Your task to perform on an android device: Clear the shopping cart on bestbuy.com. Image 0: 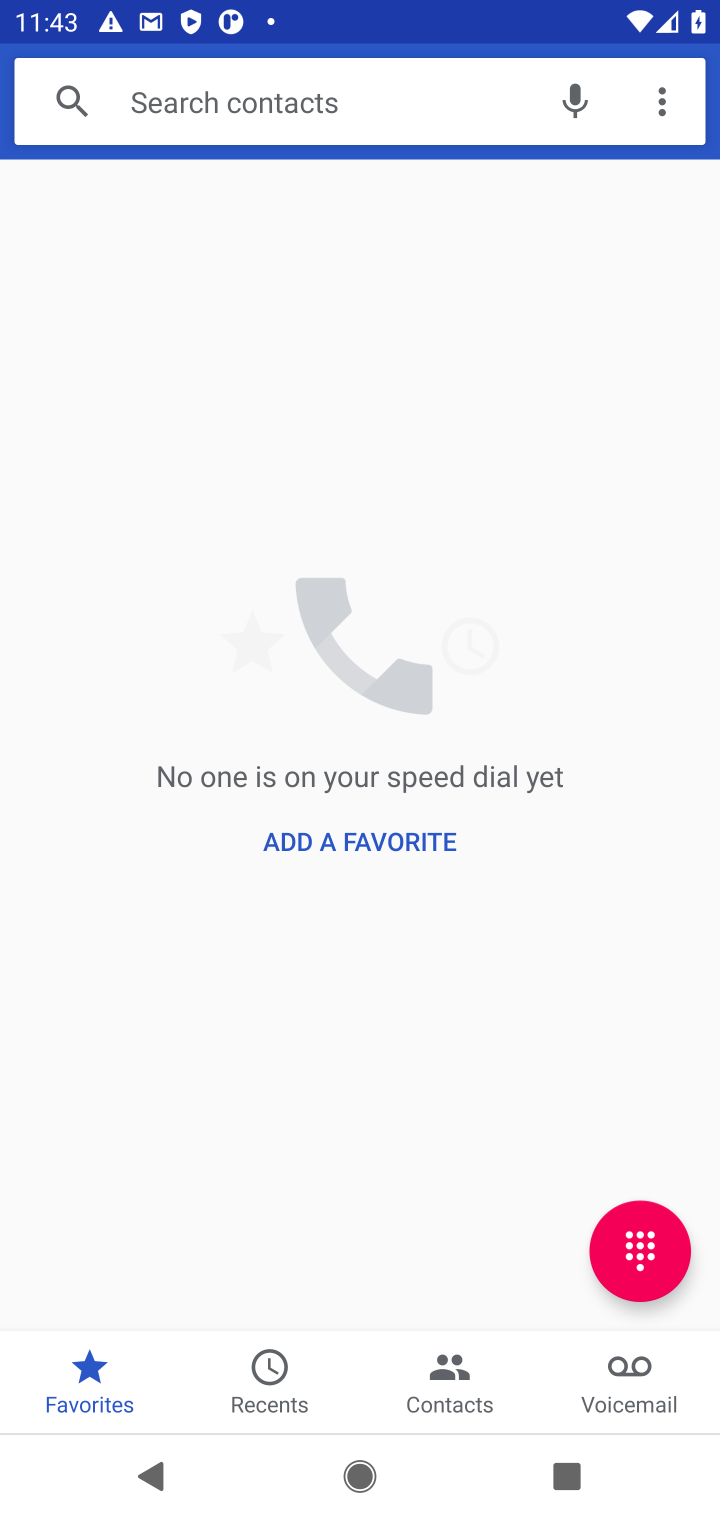
Step 0: press home button
Your task to perform on an android device: Clear the shopping cart on bestbuy.com. Image 1: 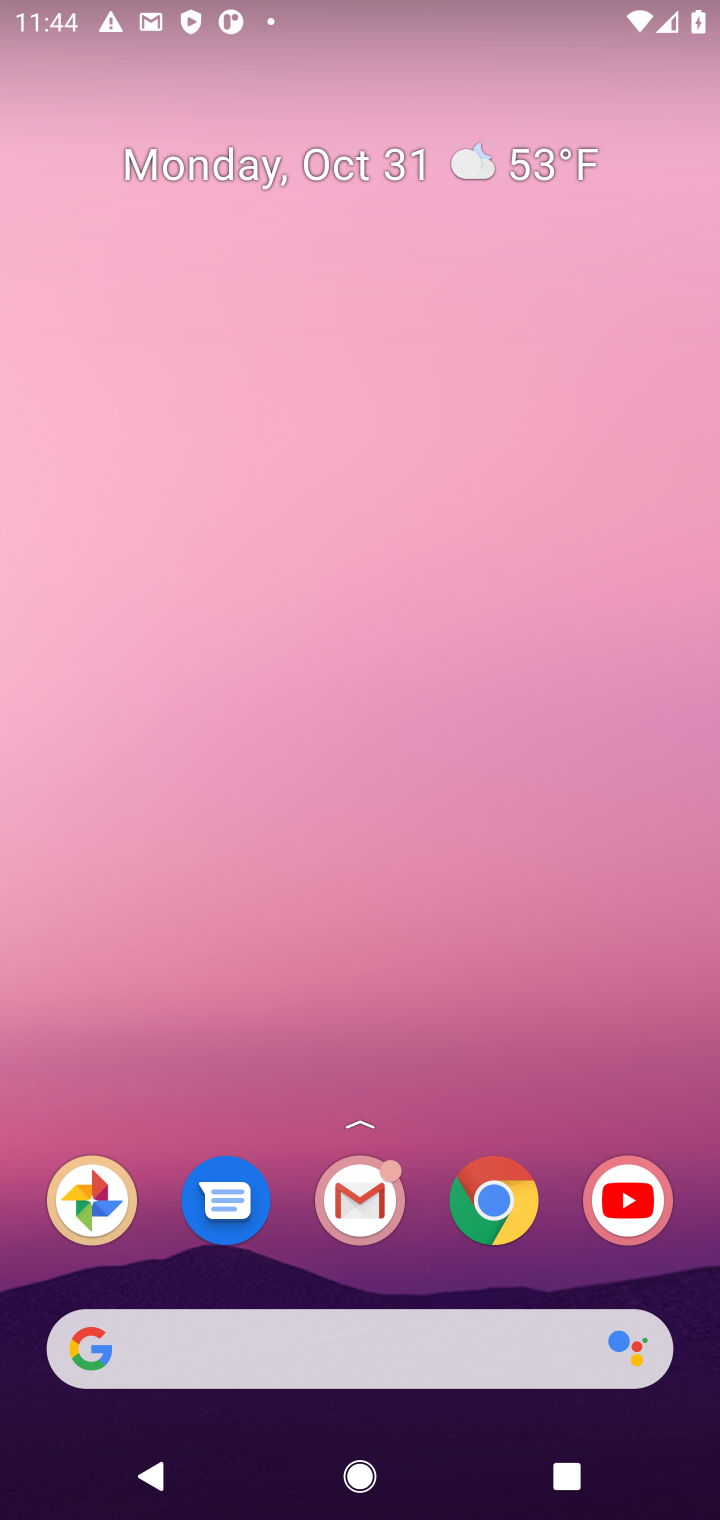
Step 1: press home button
Your task to perform on an android device: Clear the shopping cart on bestbuy.com. Image 2: 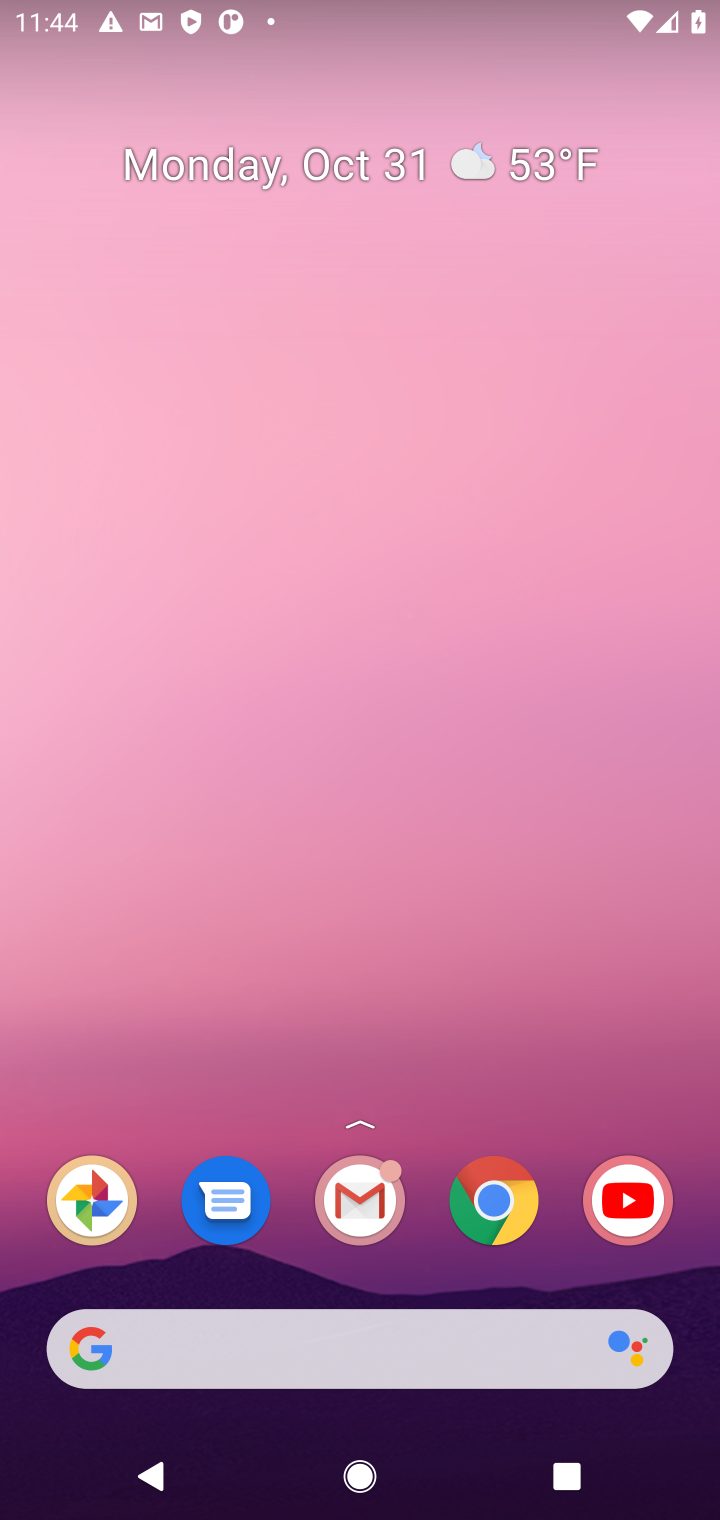
Step 2: click (475, 1225)
Your task to perform on an android device: Clear the shopping cart on bestbuy.com. Image 3: 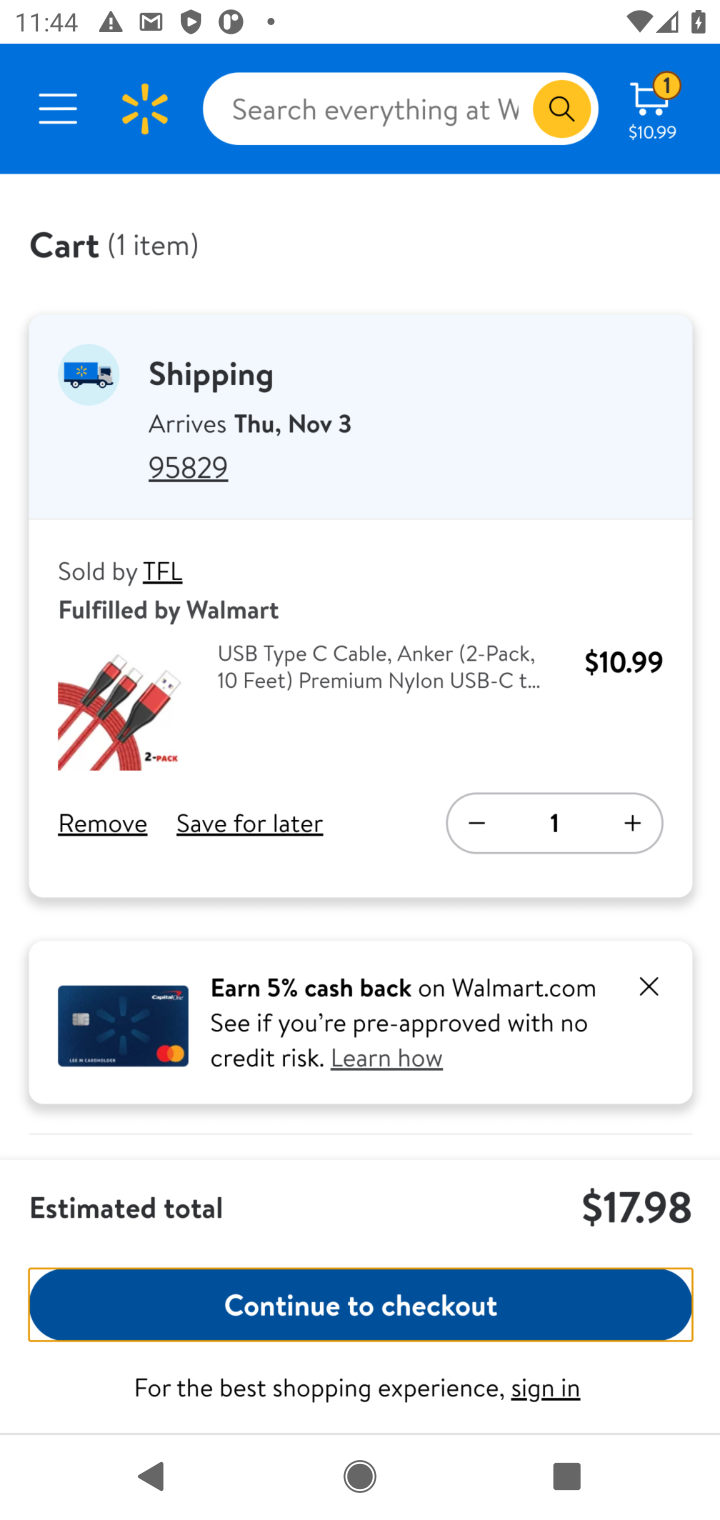
Step 3: click (501, 1210)
Your task to perform on an android device: Clear the shopping cart on bestbuy.com. Image 4: 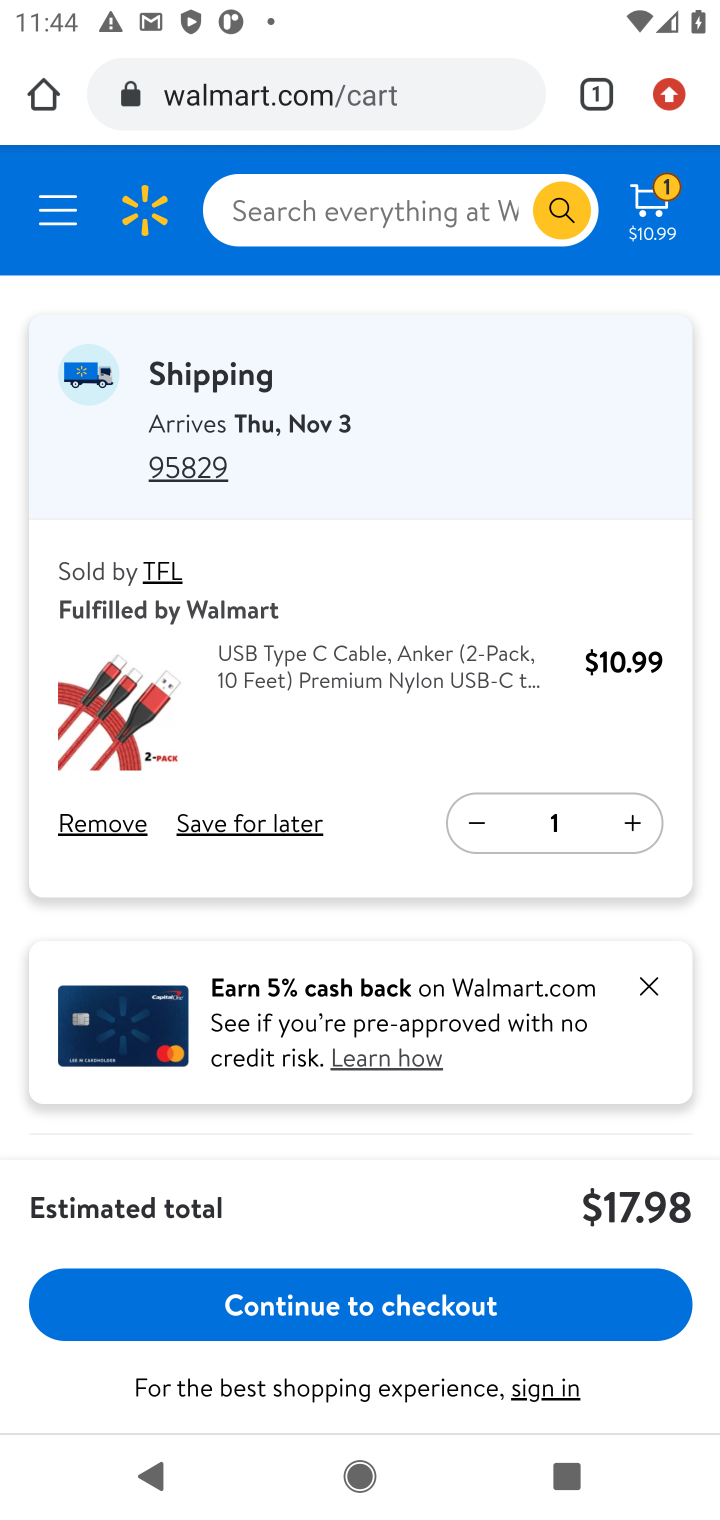
Step 4: click (355, 118)
Your task to perform on an android device: Clear the shopping cart on bestbuy.com. Image 5: 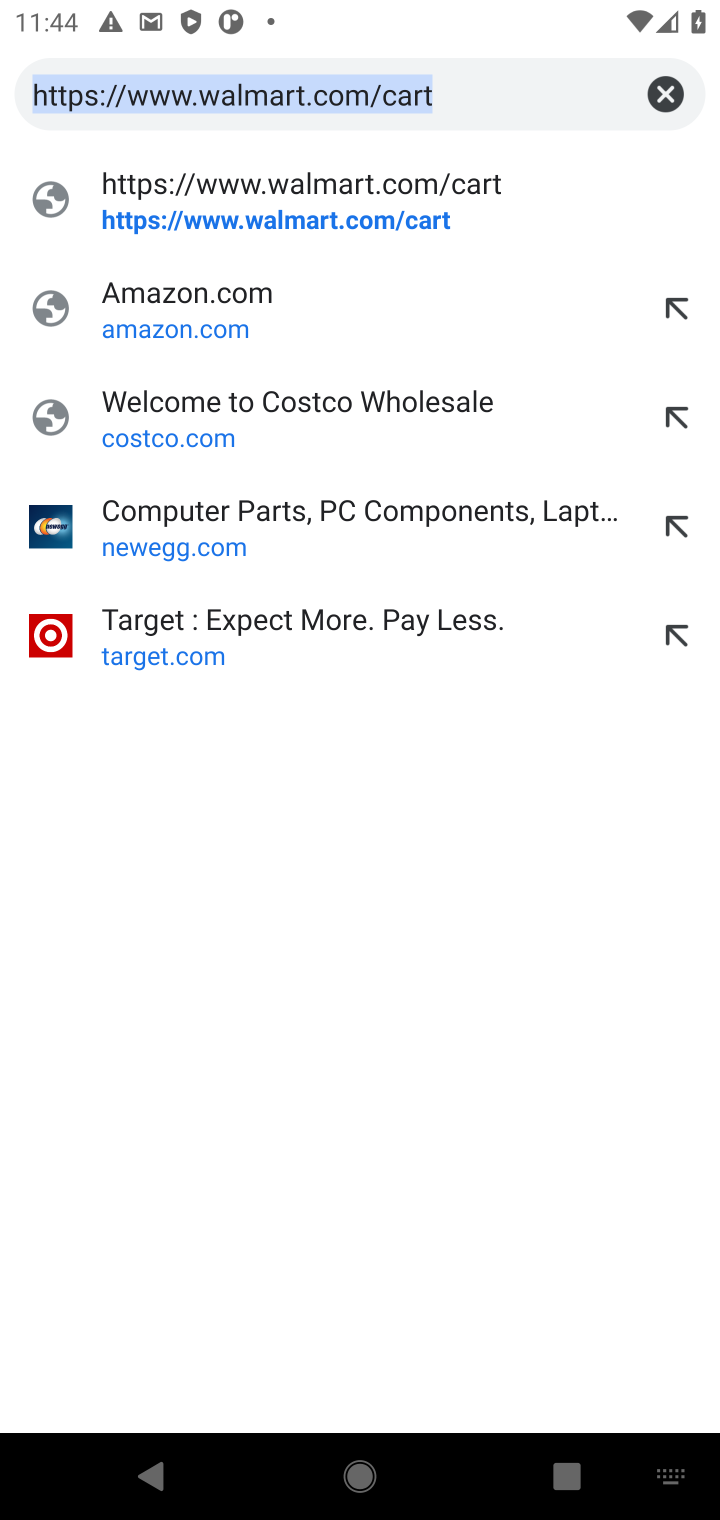
Step 5: click (427, 1022)
Your task to perform on an android device: Clear the shopping cart on bestbuy.com. Image 6: 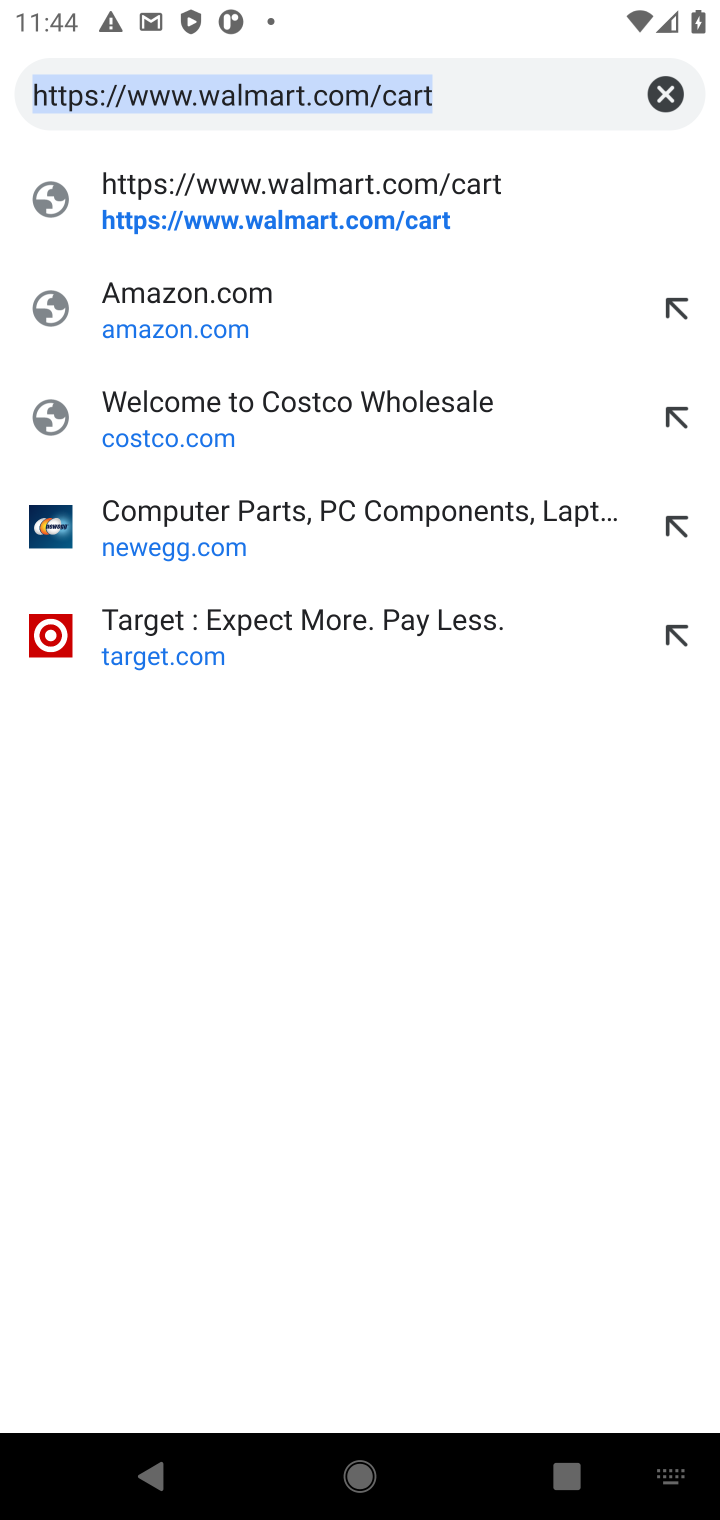
Step 6: press enter
Your task to perform on an android device: Clear the shopping cart on bestbuy.com. Image 7: 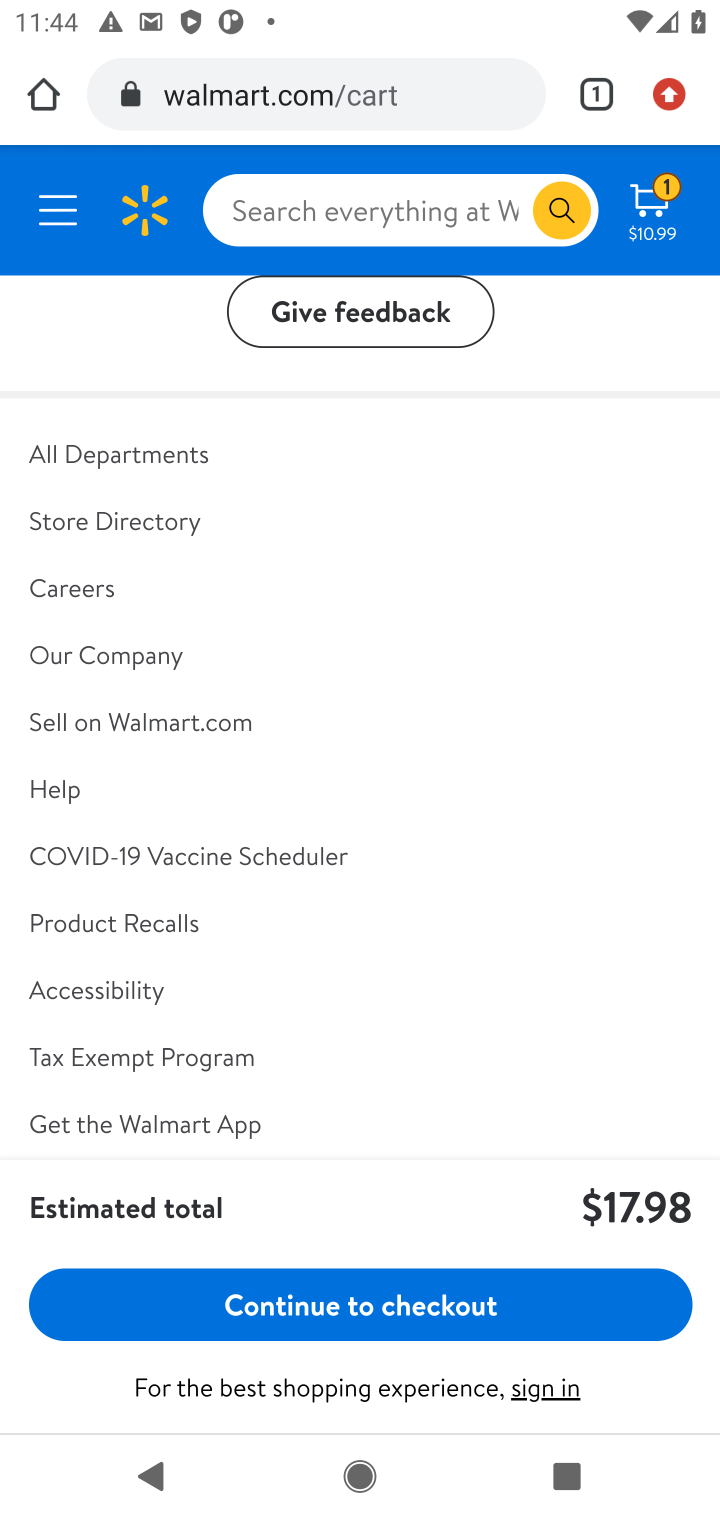
Step 7: click (669, 185)
Your task to perform on an android device: Clear the shopping cart on bestbuy.com. Image 8: 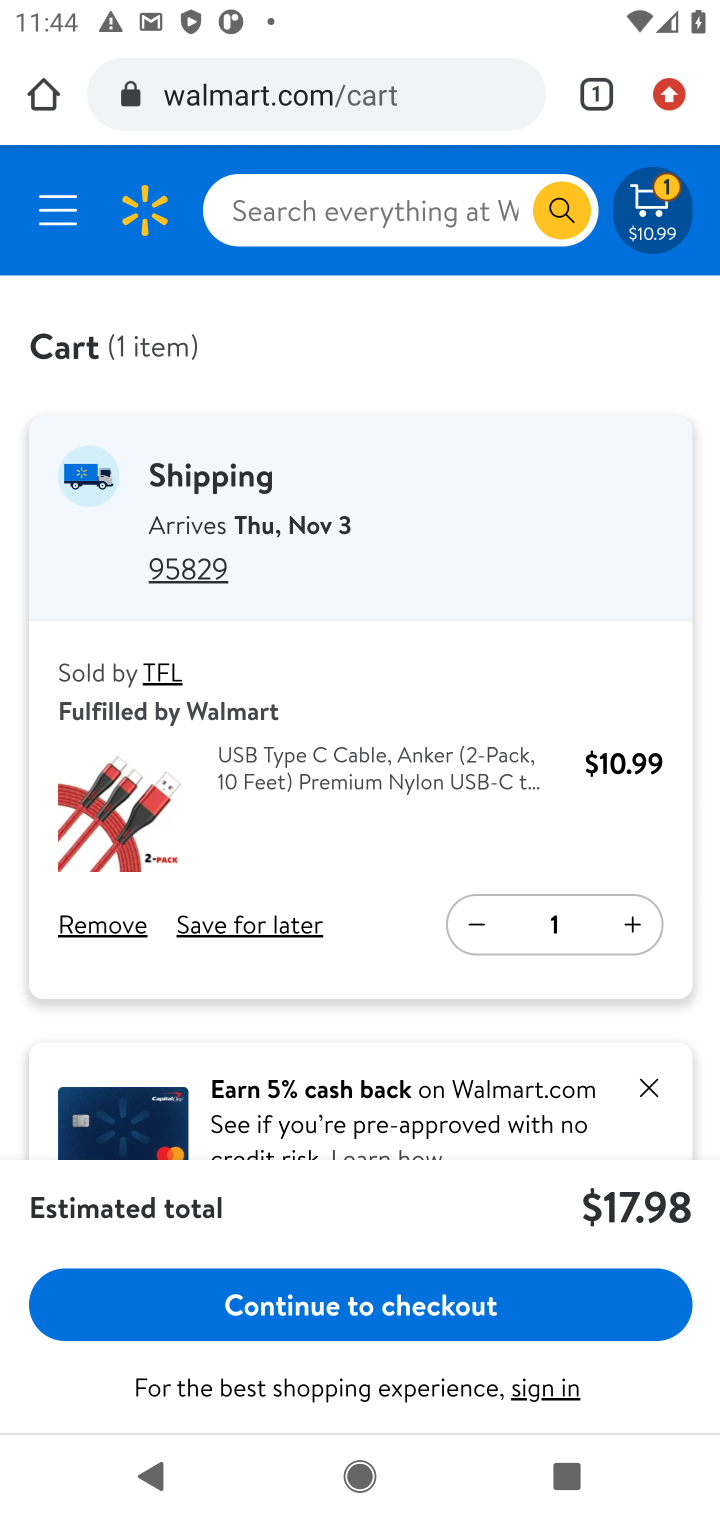
Step 8: click (471, 933)
Your task to perform on an android device: Clear the shopping cart on bestbuy.com. Image 9: 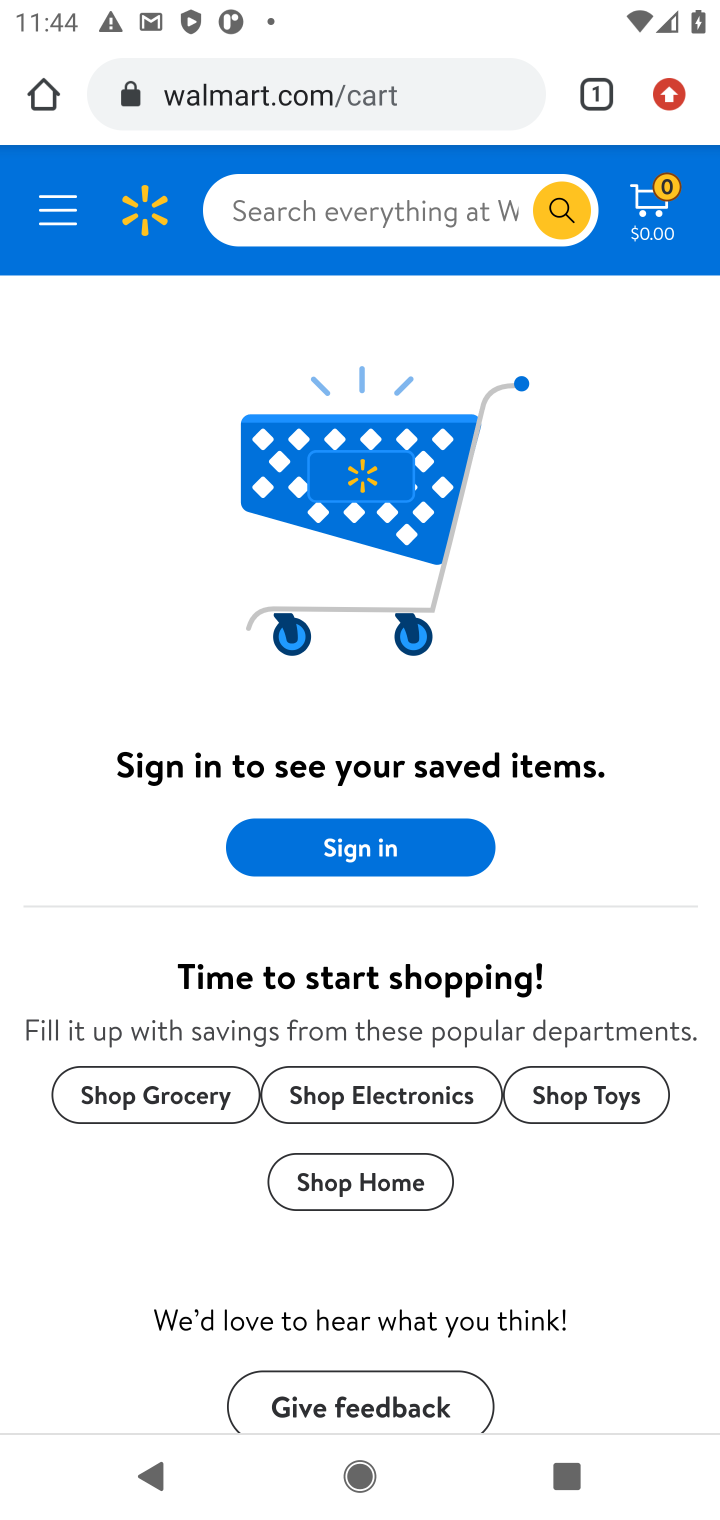
Step 9: click (231, 73)
Your task to perform on an android device: Clear the shopping cart on bestbuy.com. Image 10: 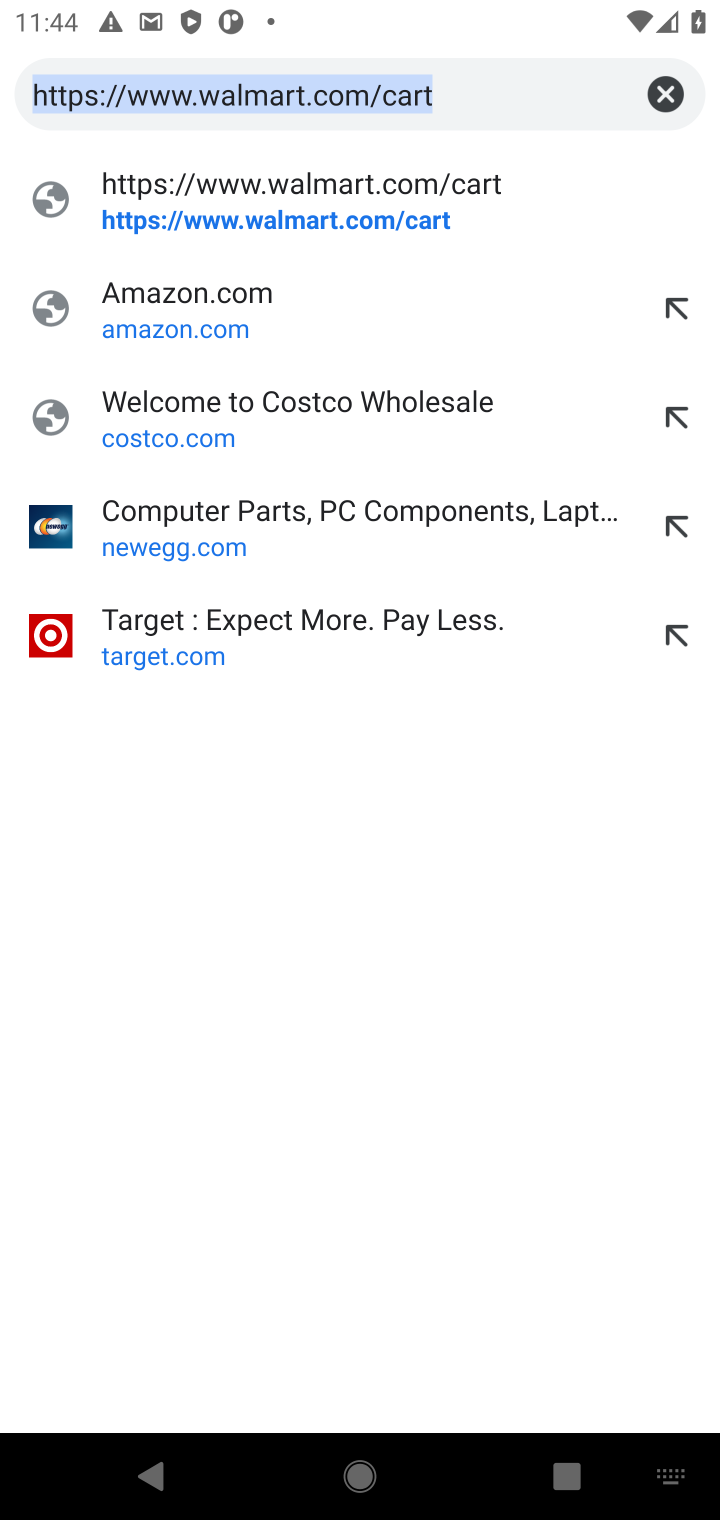
Step 10: click (660, 88)
Your task to perform on an android device: Clear the shopping cart on bestbuy.com. Image 11: 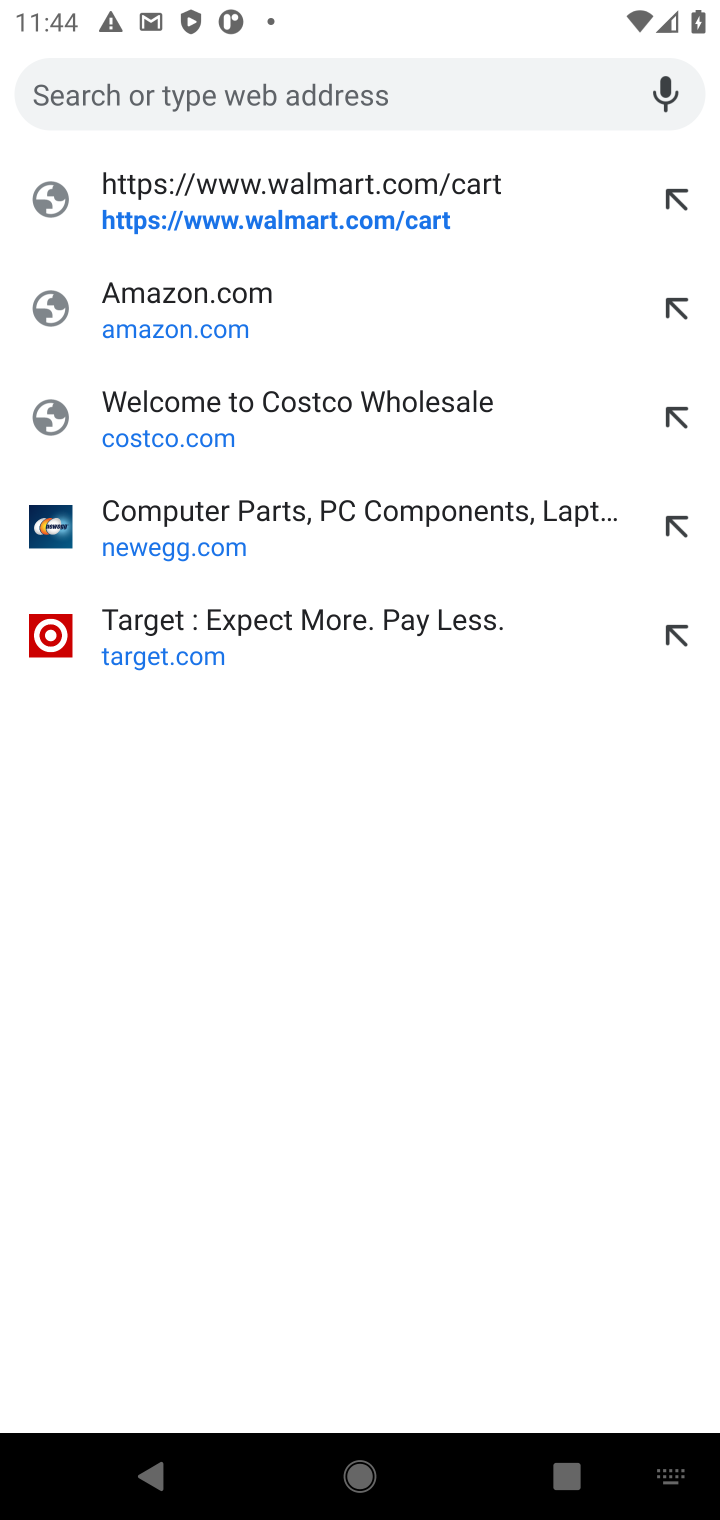
Step 11: type "bestbuy.com"
Your task to perform on an android device: Clear the shopping cart on bestbuy.com. Image 12: 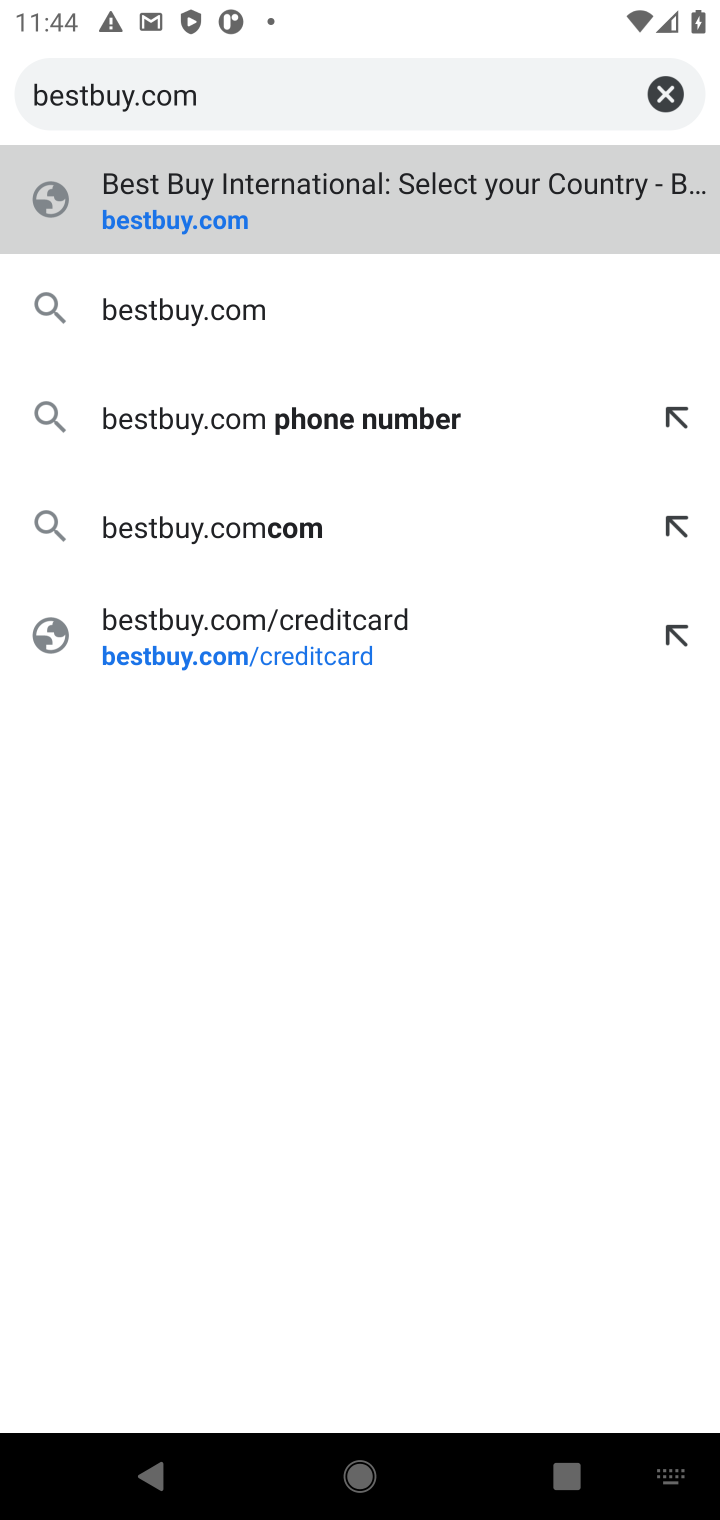
Step 12: type ""
Your task to perform on an android device: Clear the shopping cart on bestbuy.com. Image 13: 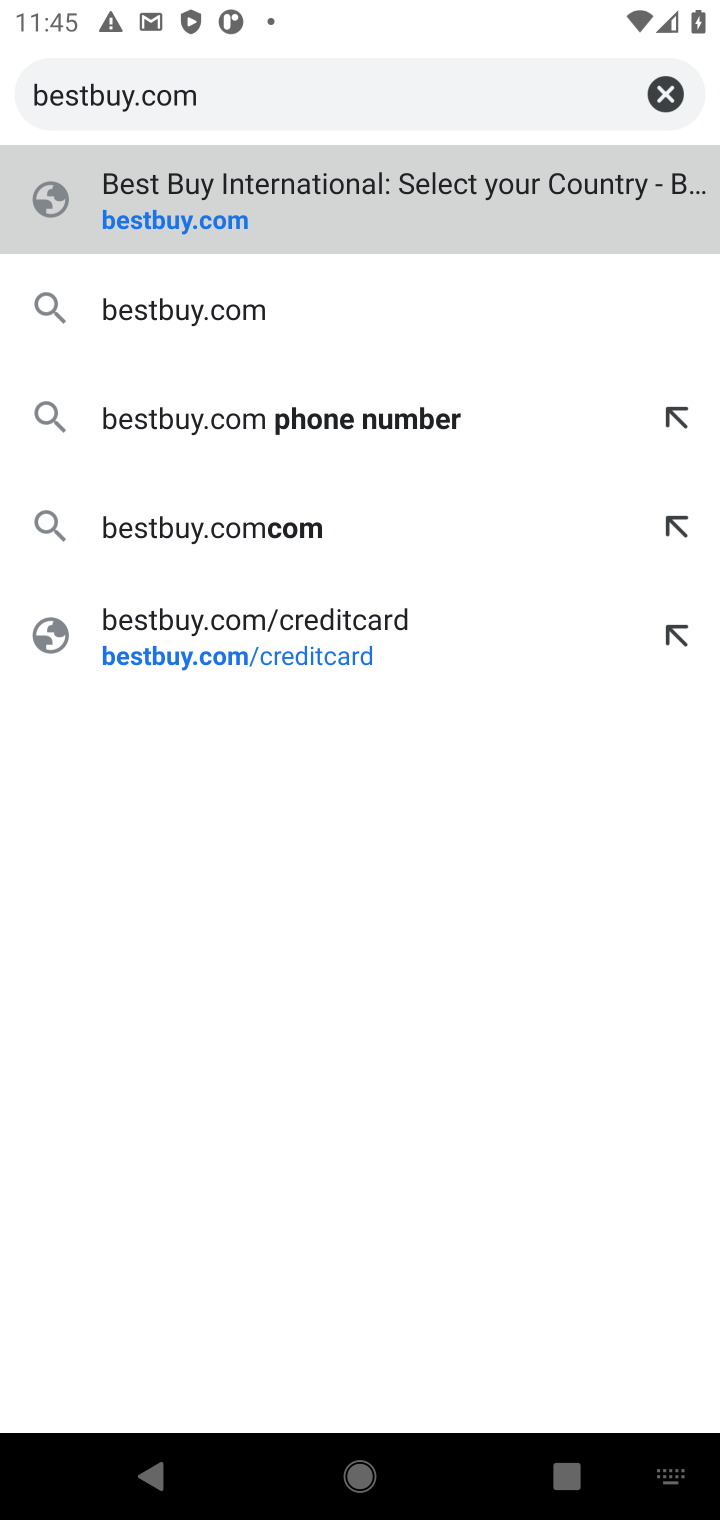
Step 13: click (243, 223)
Your task to perform on an android device: Clear the shopping cart on bestbuy.com. Image 14: 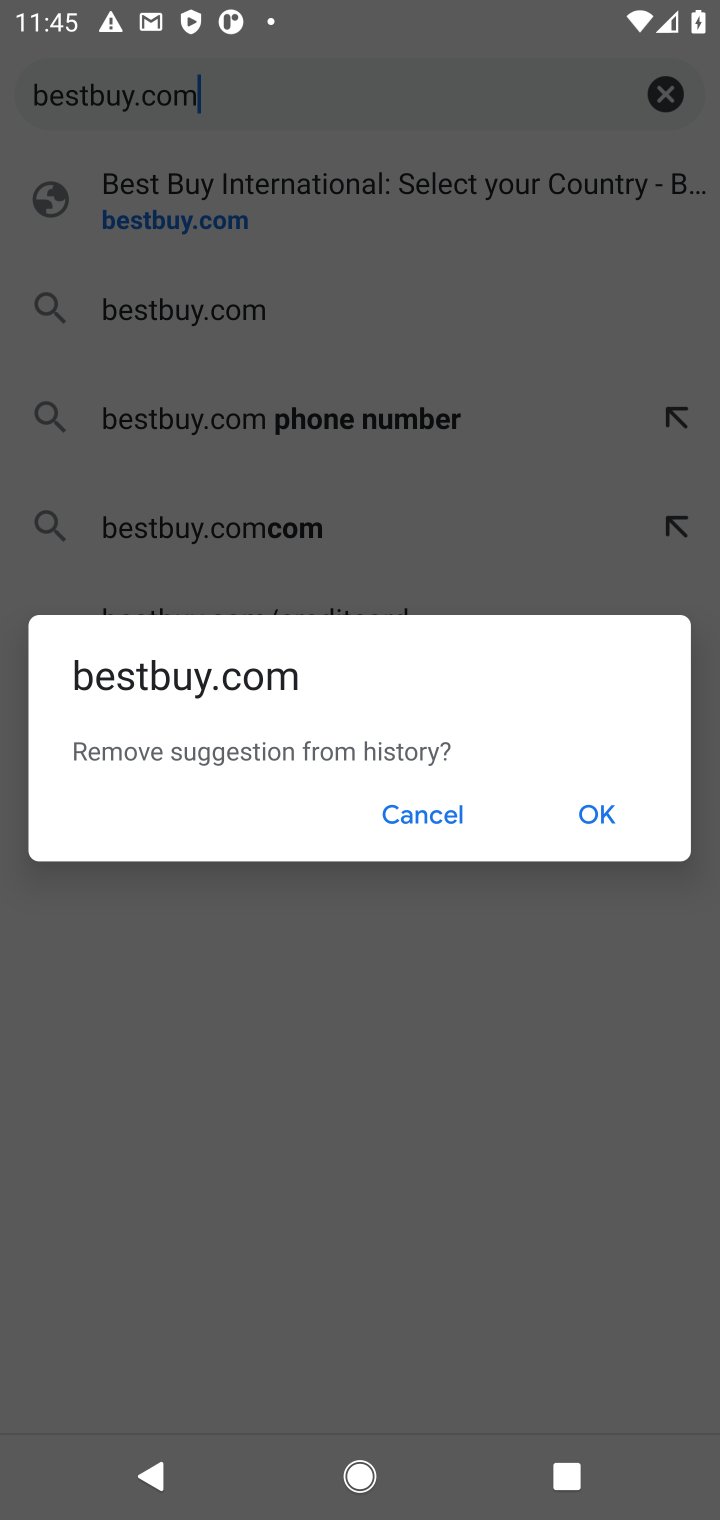
Step 14: click (584, 823)
Your task to perform on an android device: Clear the shopping cart on bestbuy.com. Image 15: 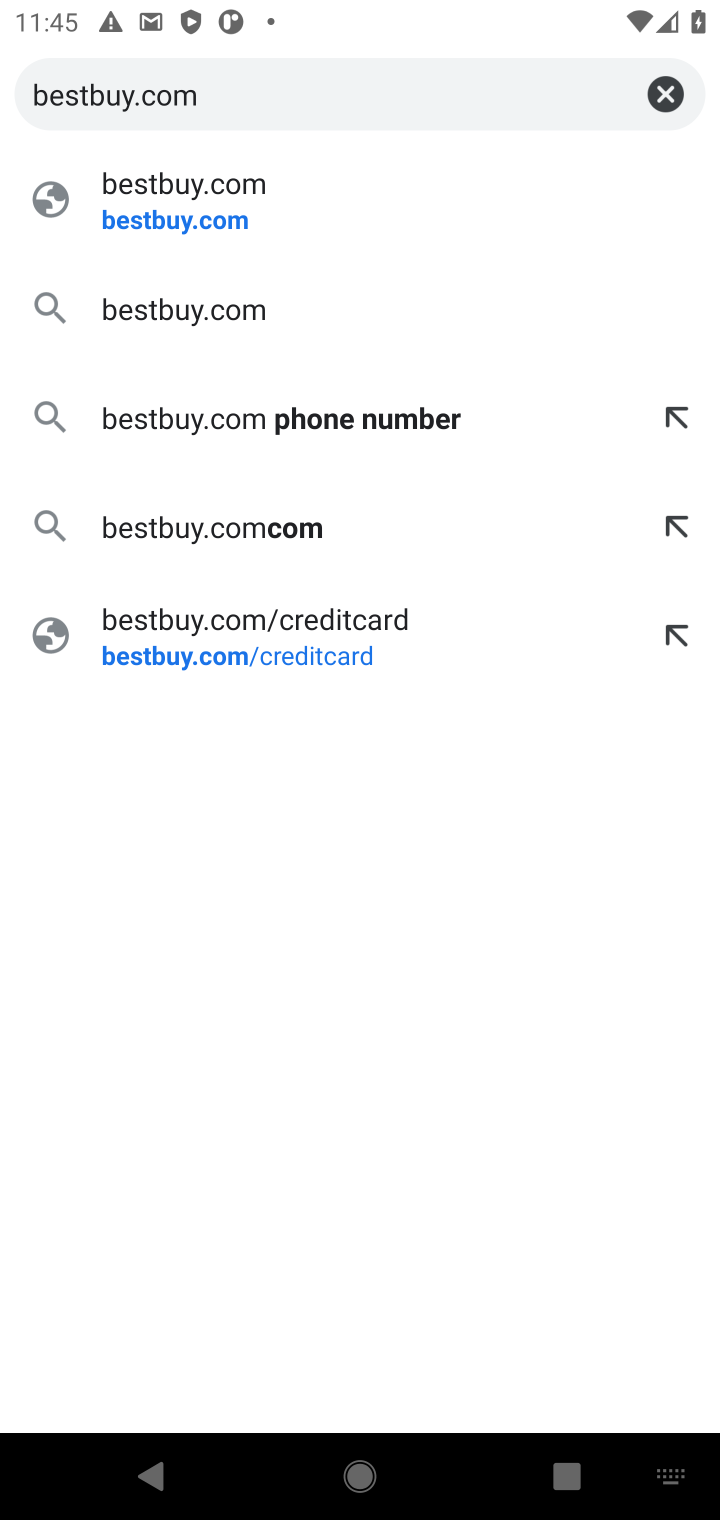
Step 15: click (290, 165)
Your task to perform on an android device: Clear the shopping cart on bestbuy.com. Image 16: 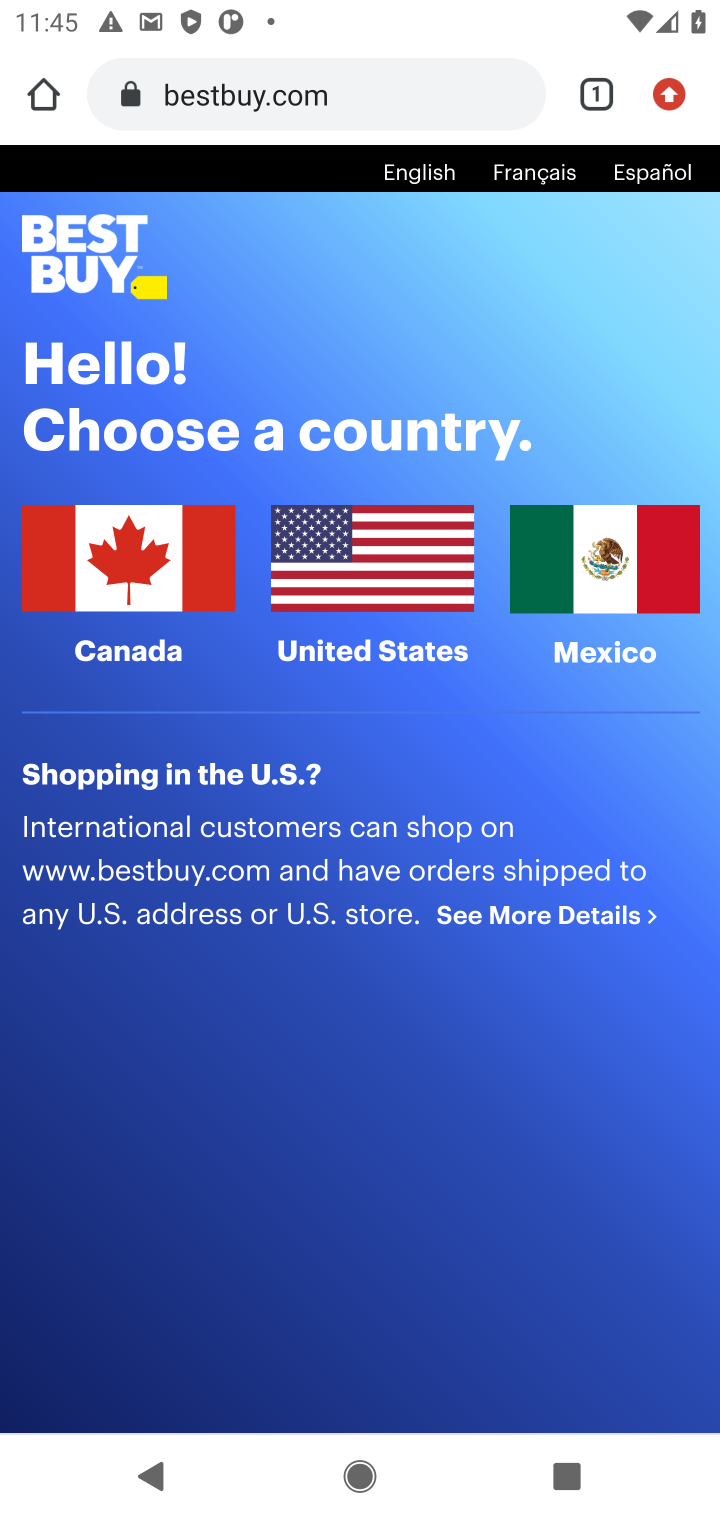
Step 16: click (379, 562)
Your task to perform on an android device: Clear the shopping cart on bestbuy.com. Image 17: 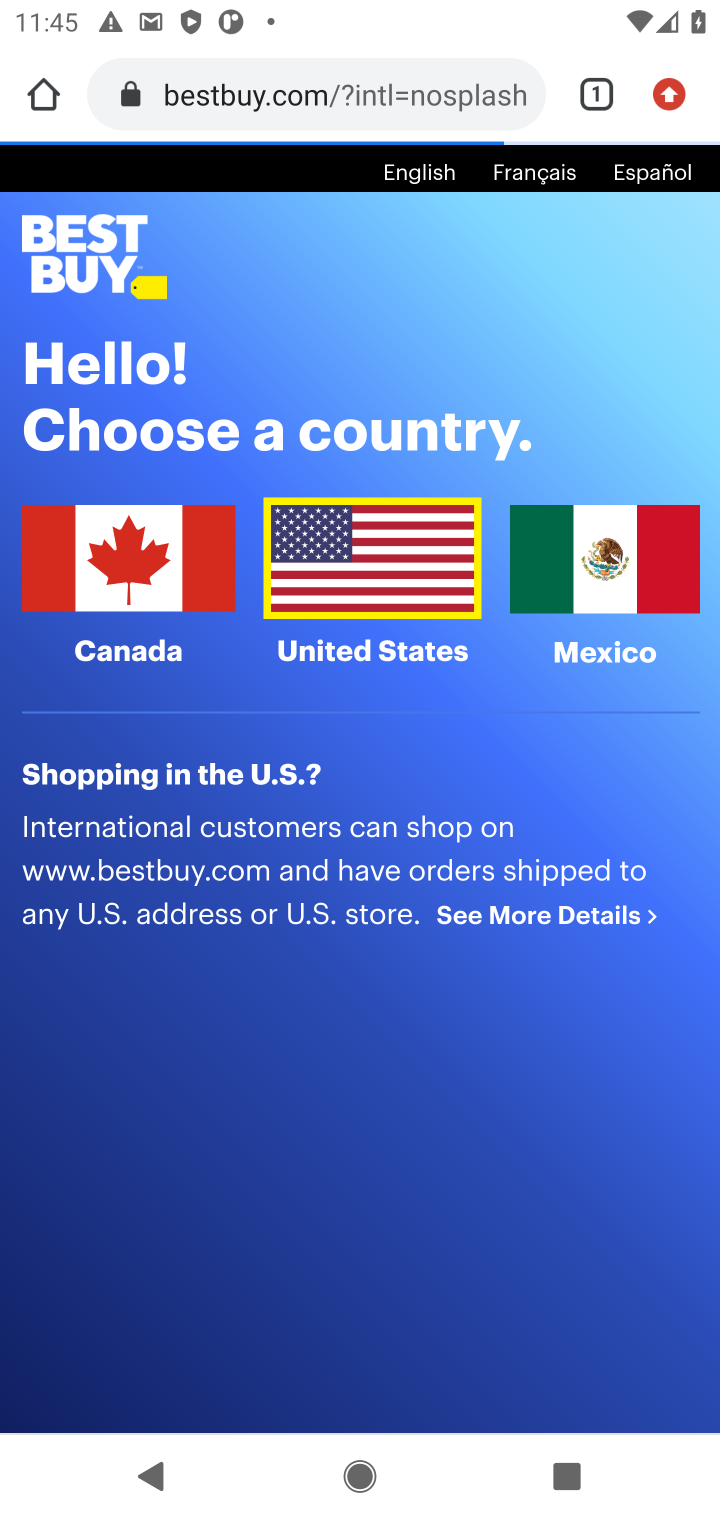
Step 17: click (365, 635)
Your task to perform on an android device: Clear the shopping cart on bestbuy.com. Image 18: 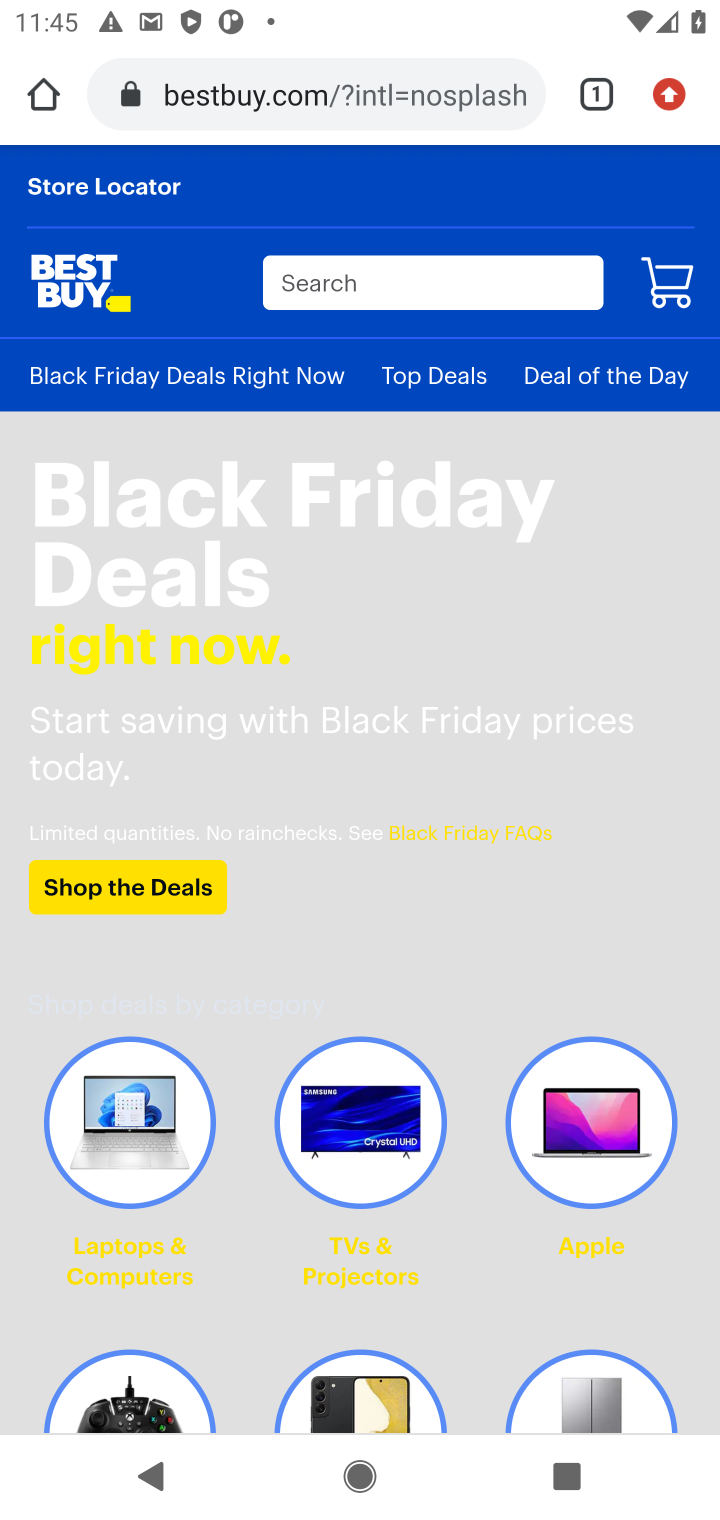
Step 18: click (652, 263)
Your task to perform on an android device: Clear the shopping cart on bestbuy.com. Image 19: 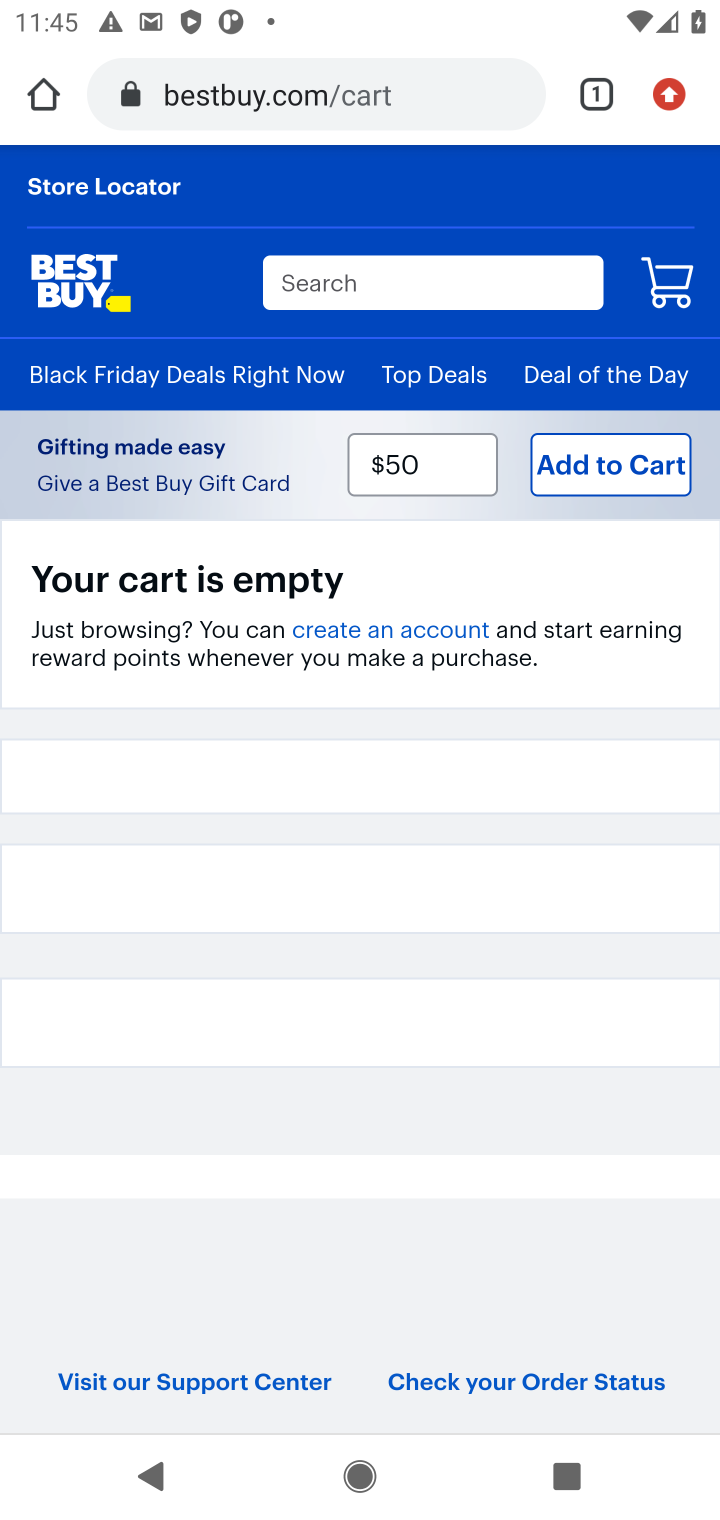
Step 19: click (652, 263)
Your task to perform on an android device: Clear the shopping cart on bestbuy.com. Image 20: 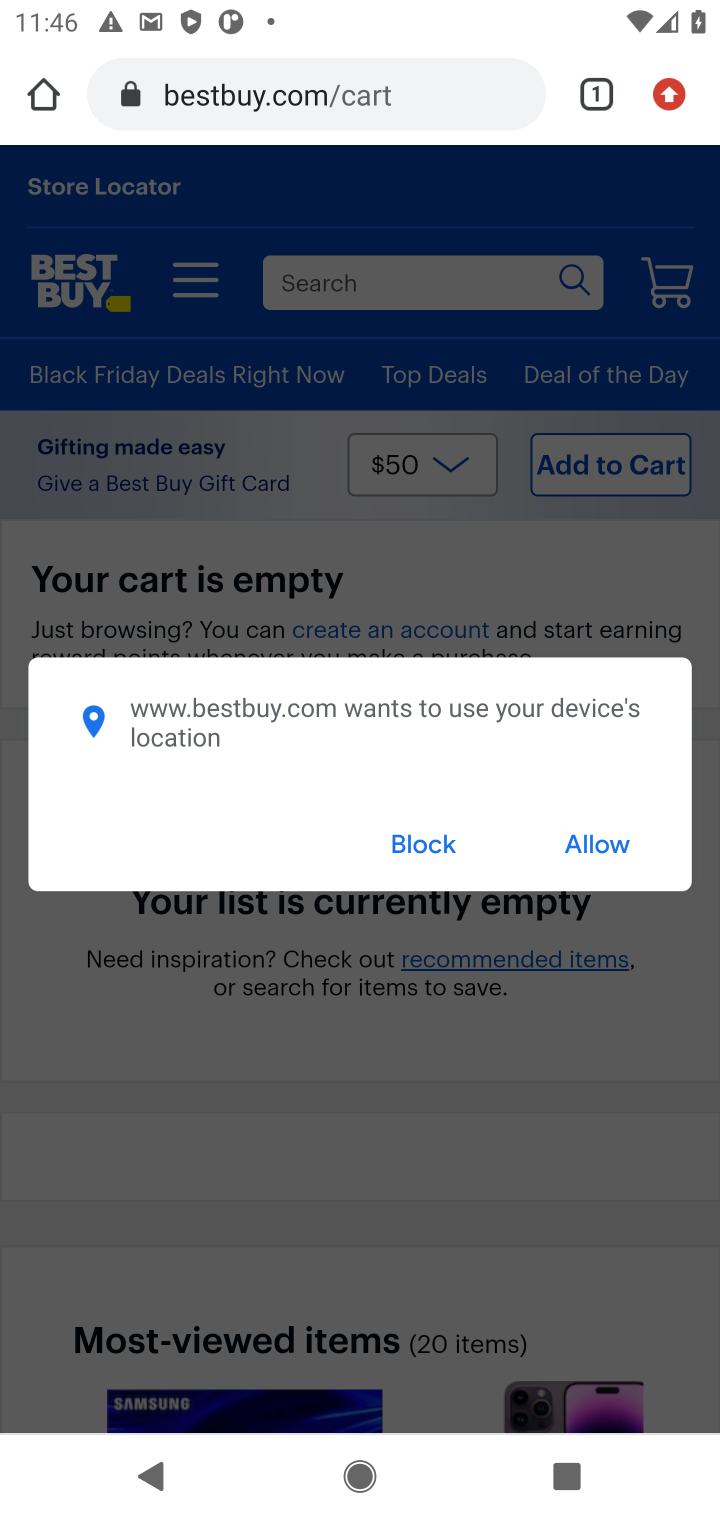
Step 20: click (447, 858)
Your task to perform on an android device: Clear the shopping cart on bestbuy.com. Image 21: 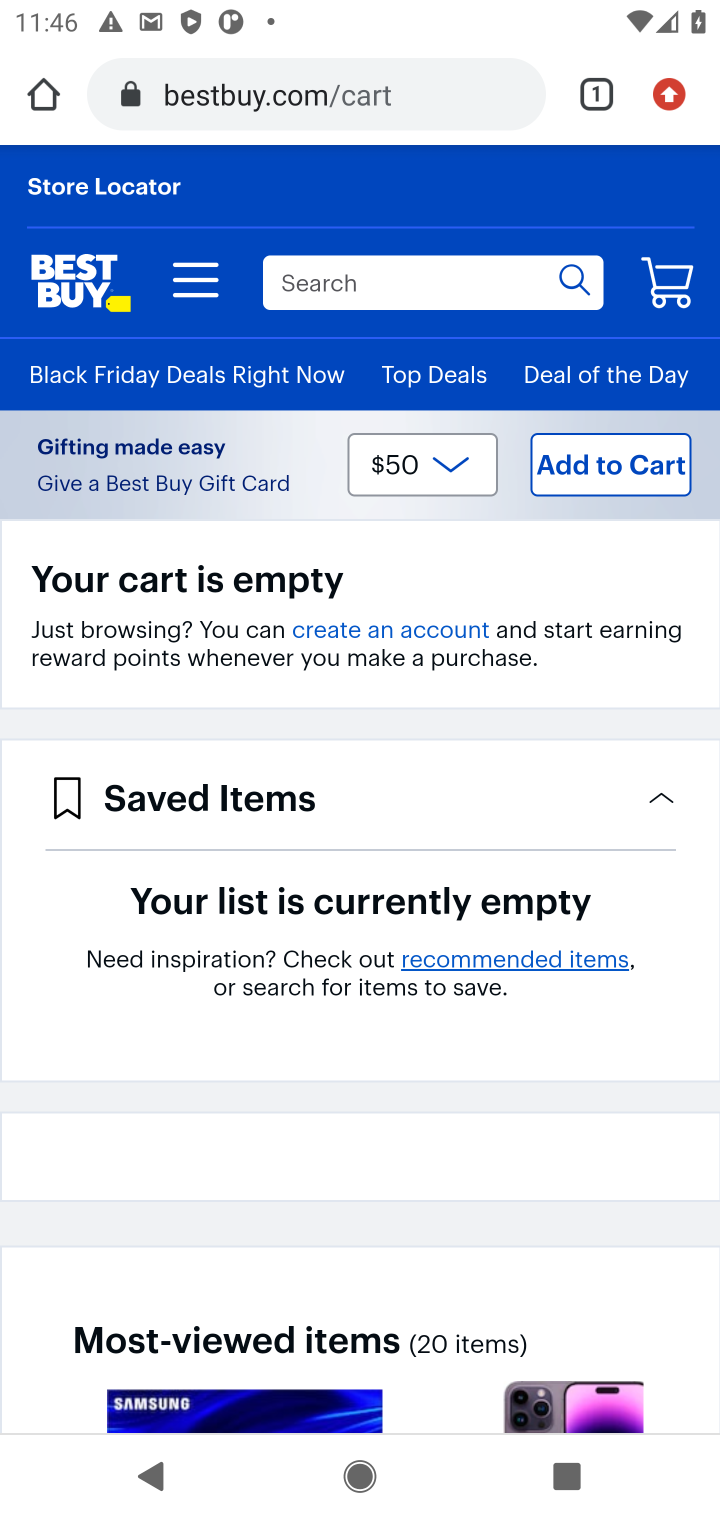
Step 21: drag from (522, 882) to (516, 343)
Your task to perform on an android device: Clear the shopping cart on bestbuy.com. Image 22: 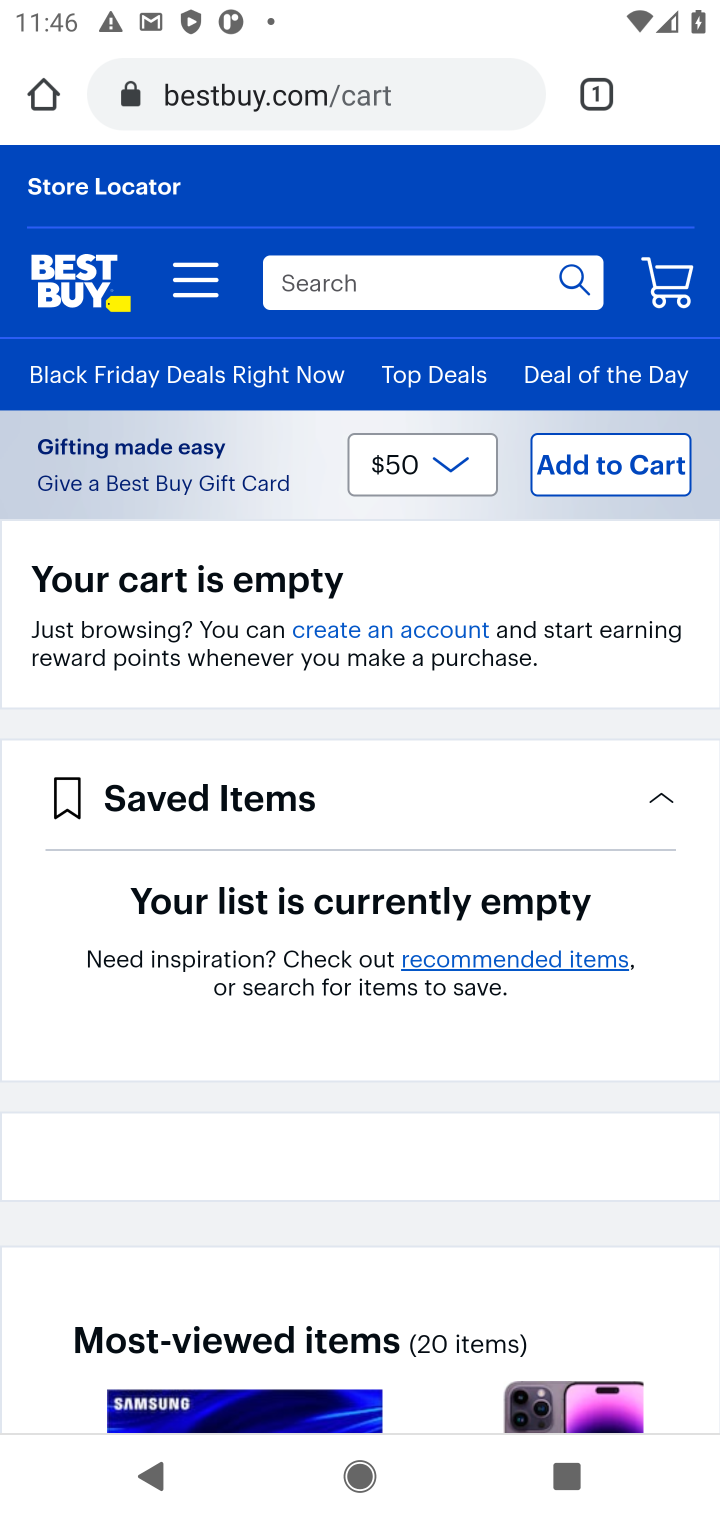
Step 22: drag from (463, 1053) to (439, 521)
Your task to perform on an android device: Clear the shopping cart on bestbuy.com. Image 23: 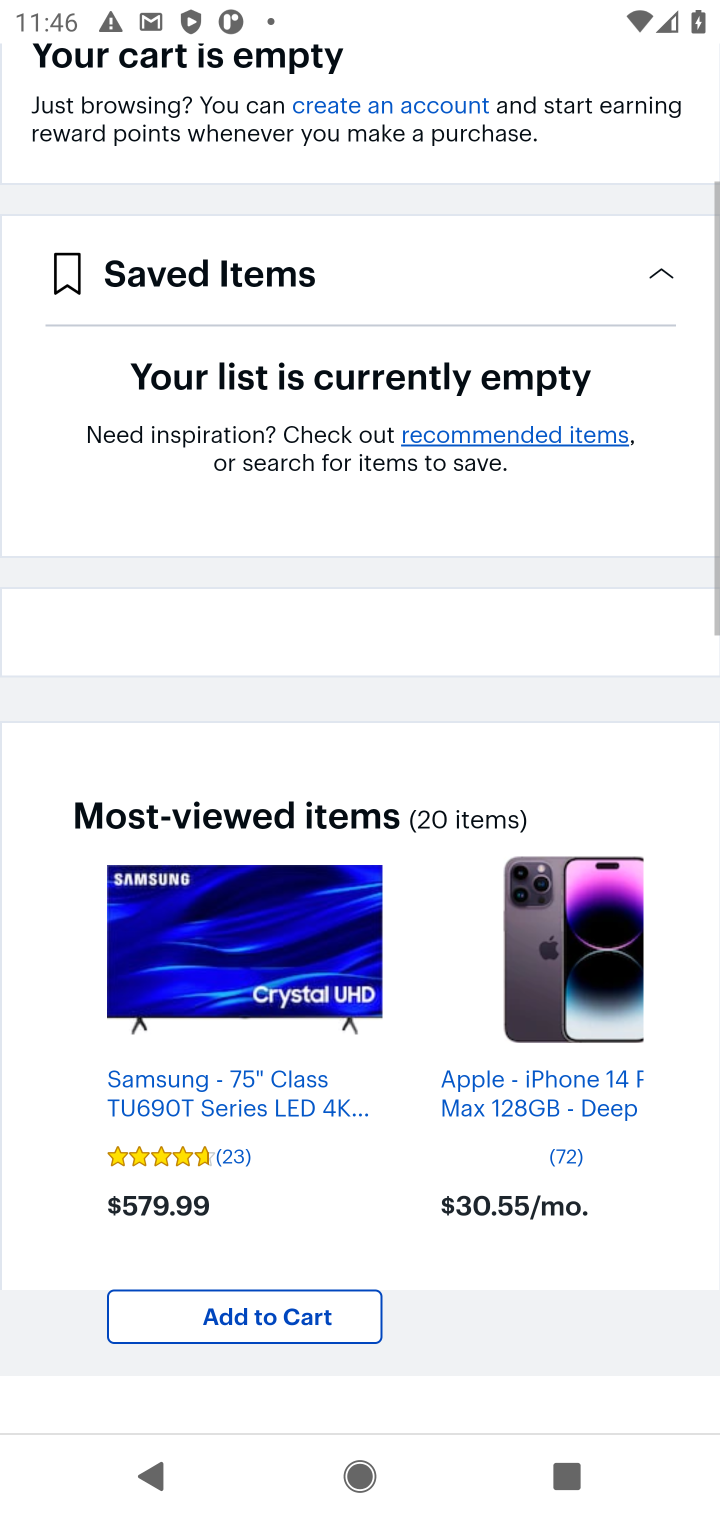
Step 23: drag from (422, 829) to (439, 558)
Your task to perform on an android device: Clear the shopping cart on bestbuy.com. Image 24: 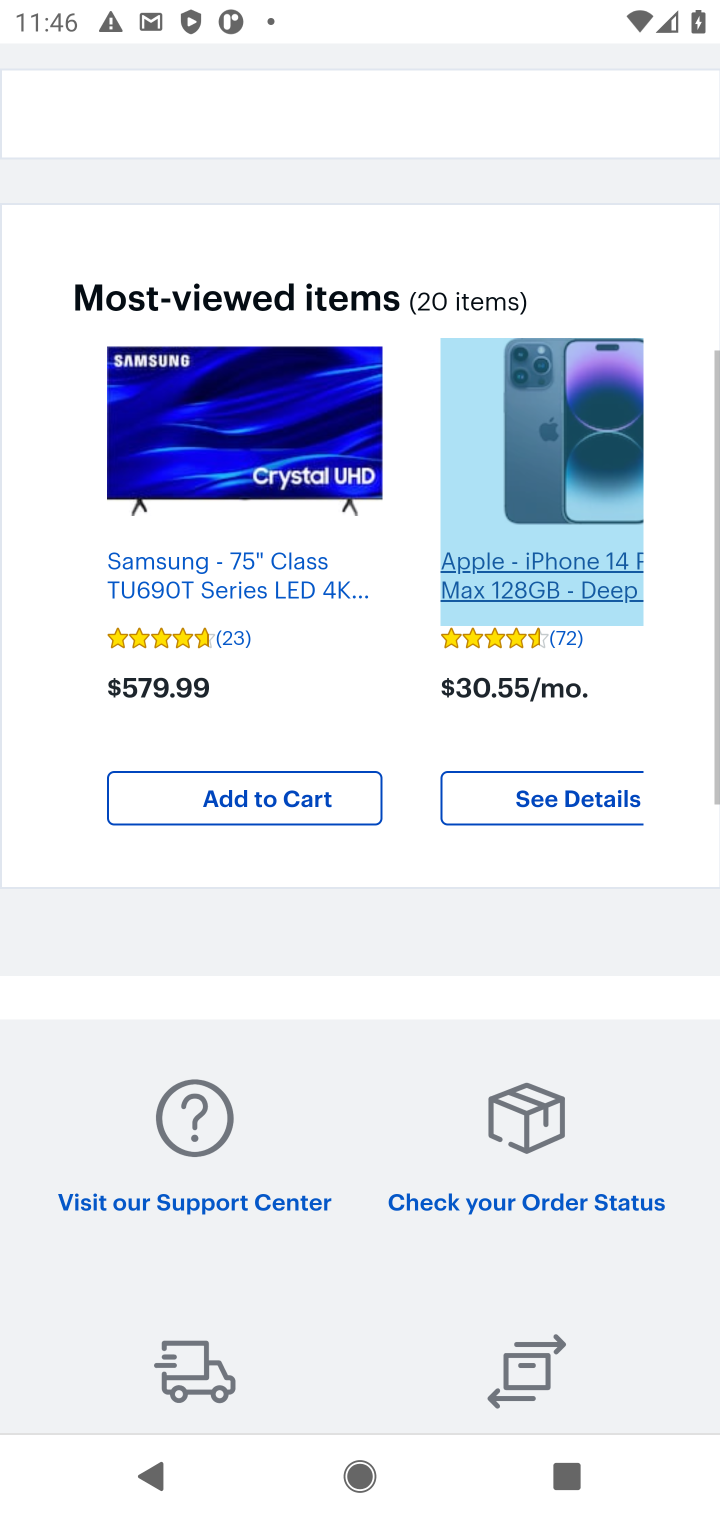
Step 24: drag from (419, 918) to (425, 545)
Your task to perform on an android device: Clear the shopping cart on bestbuy.com. Image 25: 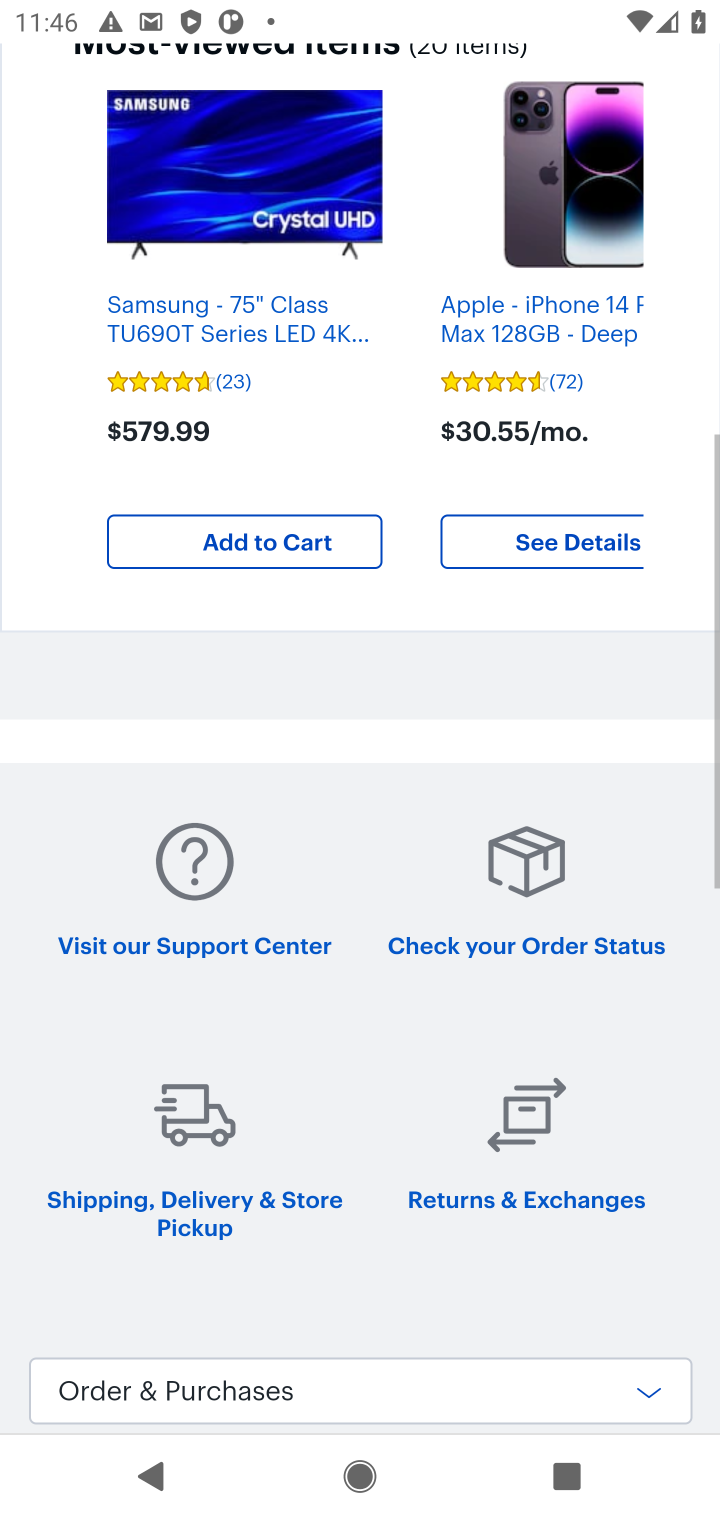
Step 25: click (373, 607)
Your task to perform on an android device: Clear the shopping cart on bestbuy.com. Image 26: 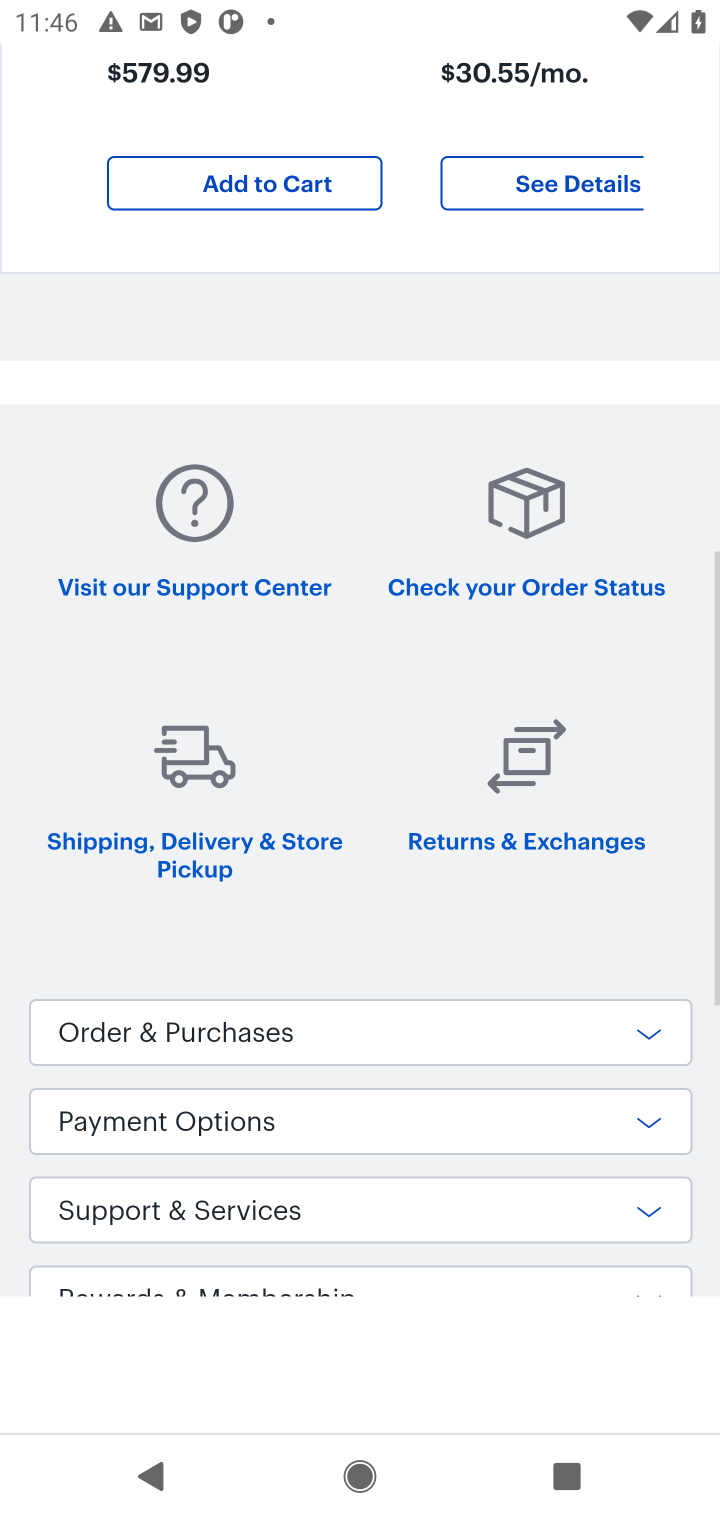
Step 26: task complete